Your task to perform on an android device: turn off improve location accuracy Image 0: 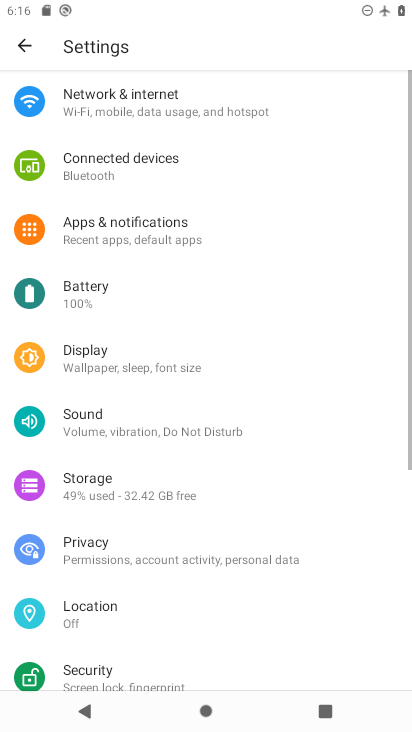
Step 0: press home button
Your task to perform on an android device: turn off improve location accuracy Image 1: 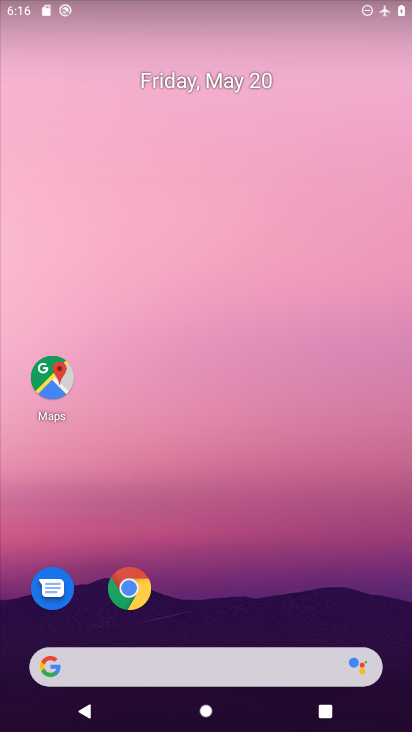
Step 1: drag from (221, 607) to (175, 191)
Your task to perform on an android device: turn off improve location accuracy Image 2: 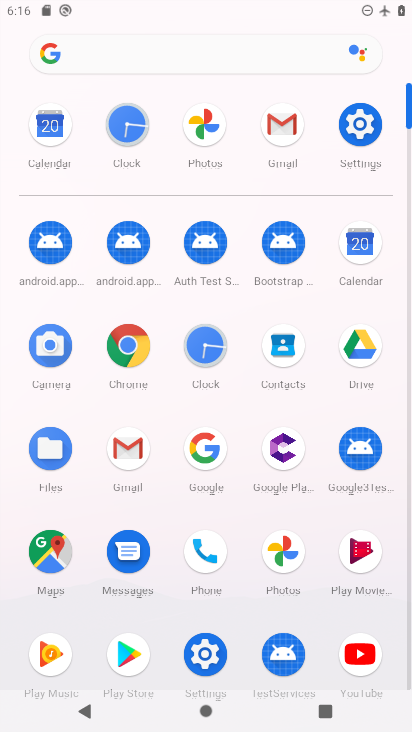
Step 2: click (362, 146)
Your task to perform on an android device: turn off improve location accuracy Image 3: 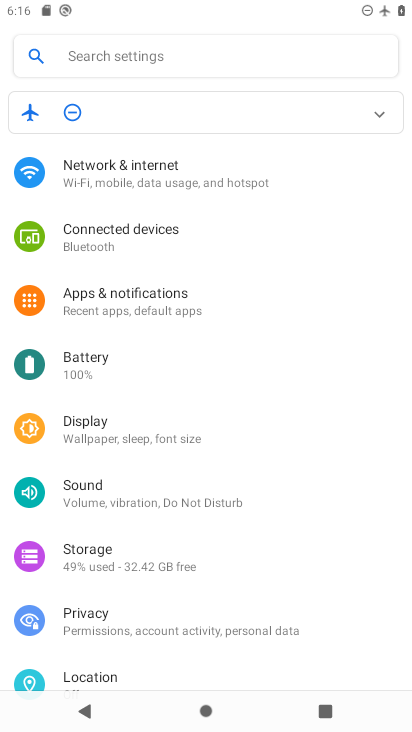
Step 3: drag from (129, 635) to (123, 319)
Your task to perform on an android device: turn off improve location accuracy Image 4: 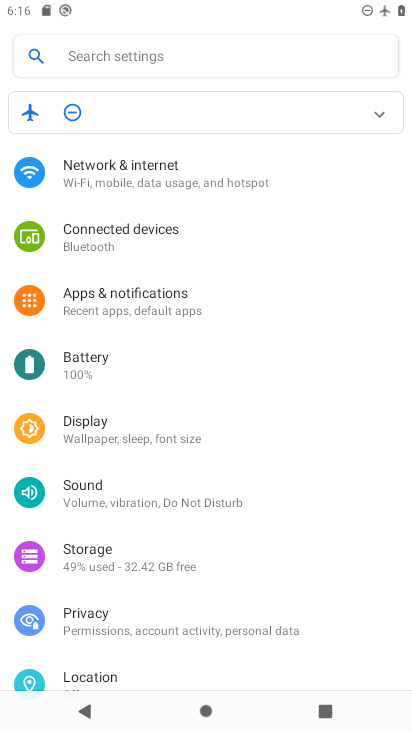
Step 4: drag from (99, 521) to (86, 310)
Your task to perform on an android device: turn off improve location accuracy Image 5: 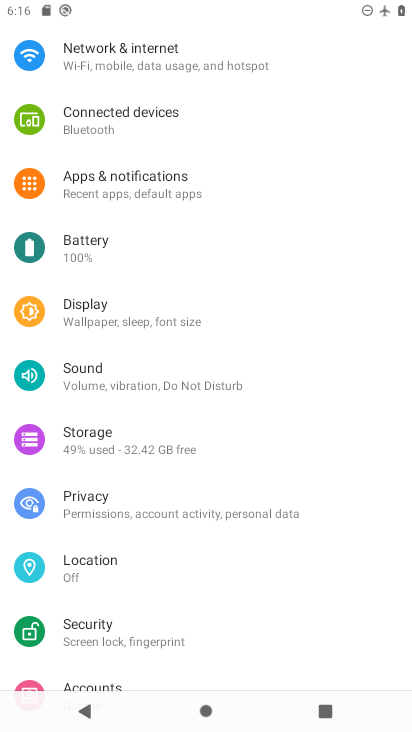
Step 5: drag from (107, 616) to (116, 255)
Your task to perform on an android device: turn off improve location accuracy Image 6: 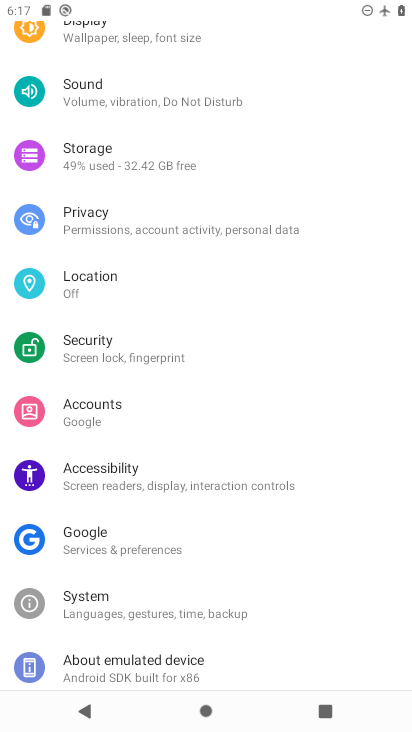
Step 6: drag from (132, 189) to (139, 547)
Your task to perform on an android device: turn off improve location accuracy Image 7: 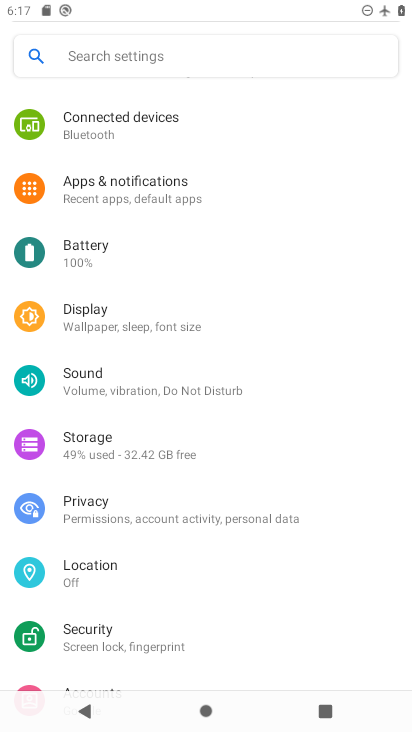
Step 7: click (77, 588)
Your task to perform on an android device: turn off improve location accuracy Image 8: 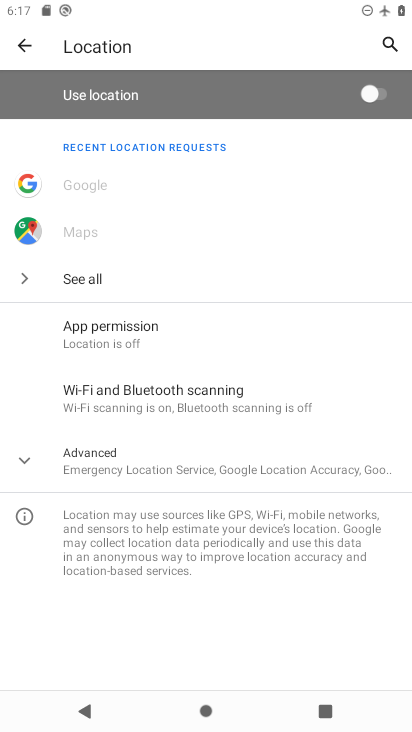
Step 8: click (151, 465)
Your task to perform on an android device: turn off improve location accuracy Image 9: 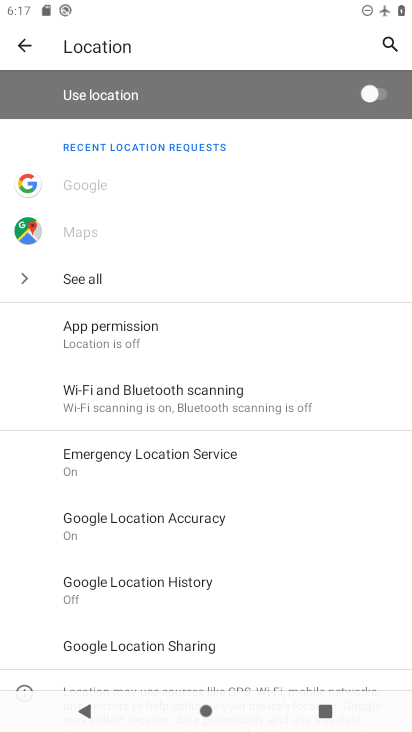
Step 9: click (156, 524)
Your task to perform on an android device: turn off improve location accuracy Image 10: 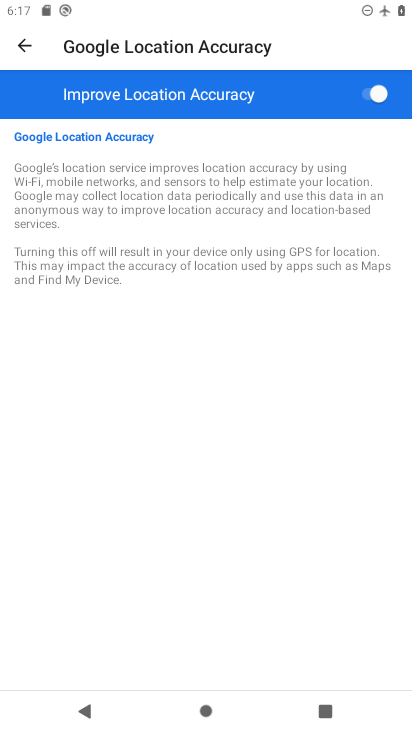
Step 10: click (365, 104)
Your task to perform on an android device: turn off improve location accuracy Image 11: 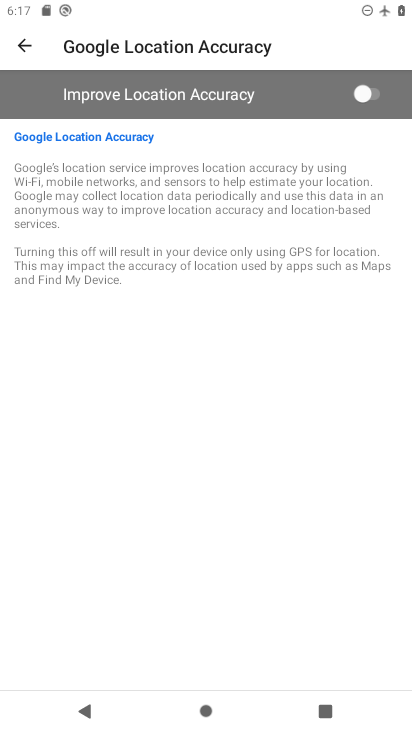
Step 11: task complete